Your task to perform on an android device: turn on wifi Image 0: 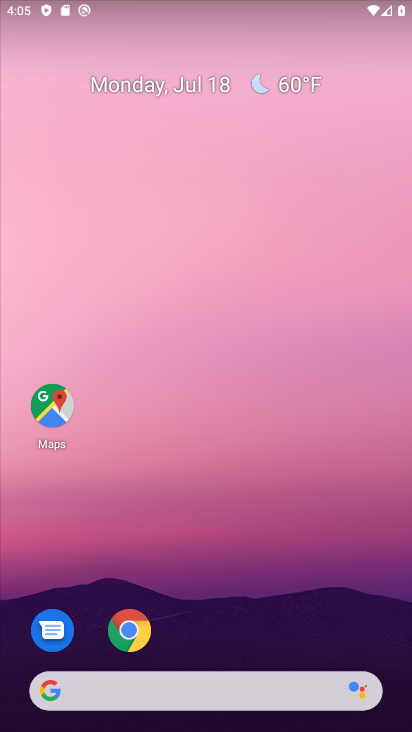
Step 0: drag from (229, 710) to (144, 361)
Your task to perform on an android device: turn on wifi Image 1: 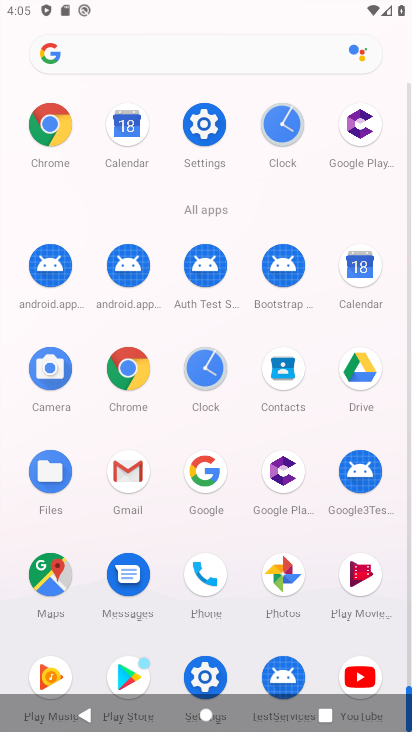
Step 1: click (212, 124)
Your task to perform on an android device: turn on wifi Image 2: 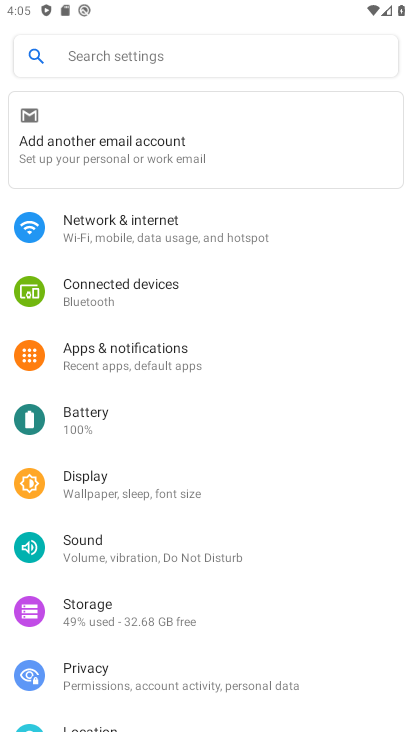
Step 2: click (141, 227)
Your task to perform on an android device: turn on wifi Image 3: 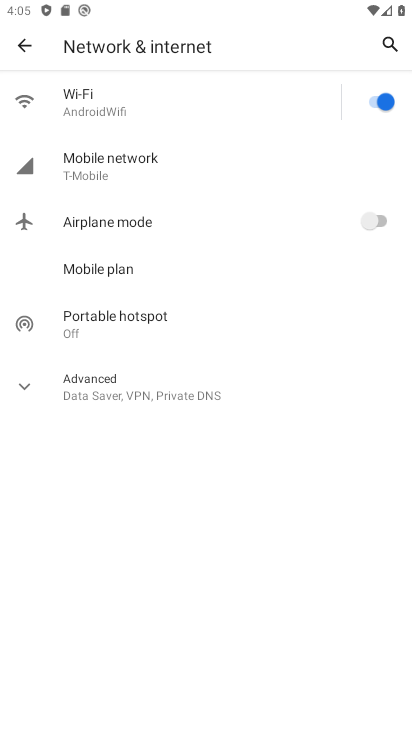
Step 3: task complete